Your task to perform on an android device: Clear the shopping cart on bestbuy. Search for "razer blade" on bestbuy, select the first entry, and add it to the cart. Image 0: 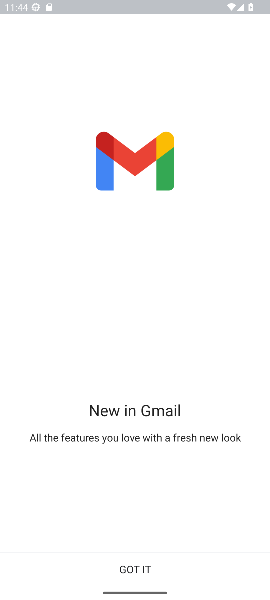
Step 0: press home button
Your task to perform on an android device: Clear the shopping cart on bestbuy. Search for "razer blade" on bestbuy, select the first entry, and add it to the cart. Image 1: 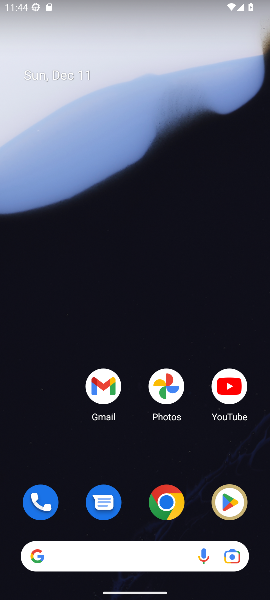
Step 1: click (118, 558)
Your task to perform on an android device: Clear the shopping cart on bestbuy. Search for "razer blade" on bestbuy, select the first entry, and add it to the cart. Image 2: 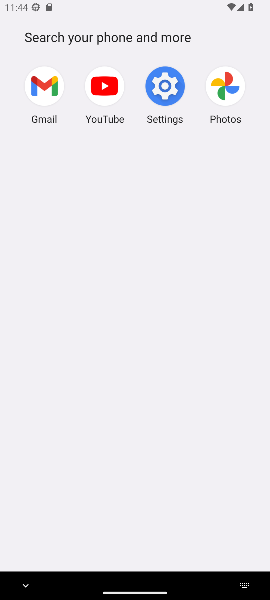
Step 2: type "bestbuy"
Your task to perform on an android device: Clear the shopping cart on bestbuy. Search for "razer blade" on bestbuy, select the first entry, and add it to the cart. Image 3: 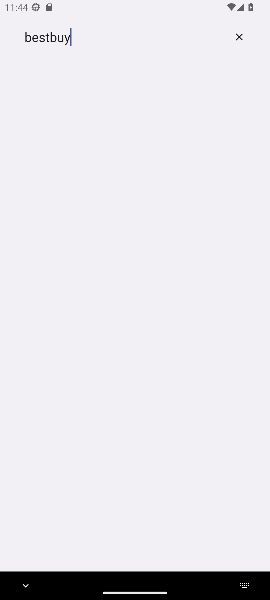
Step 3: press home button
Your task to perform on an android device: Clear the shopping cart on bestbuy. Search for "razer blade" on bestbuy, select the first entry, and add it to the cart. Image 4: 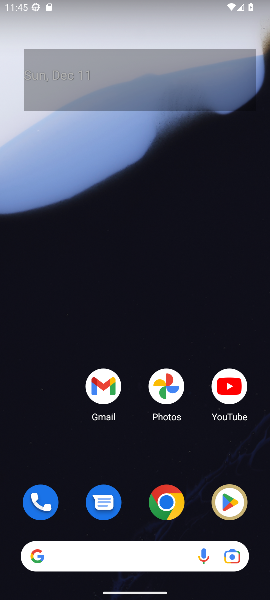
Step 4: click (148, 509)
Your task to perform on an android device: Clear the shopping cart on bestbuy. Search for "razer blade" on bestbuy, select the first entry, and add it to the cart. Image 5: 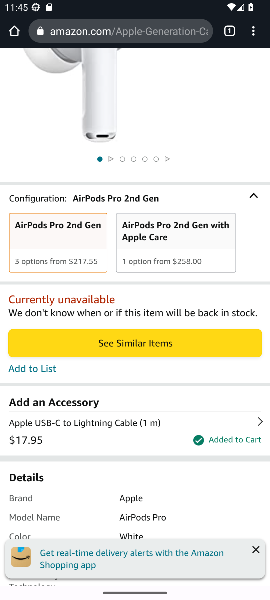
Step 5: type "bestbuy"
Your task to perform on an android device: Clear the shopping cart on bestbuy. Search for "razer blade" on bestbuy, select the first entry, and add it to the cart. Image 6: 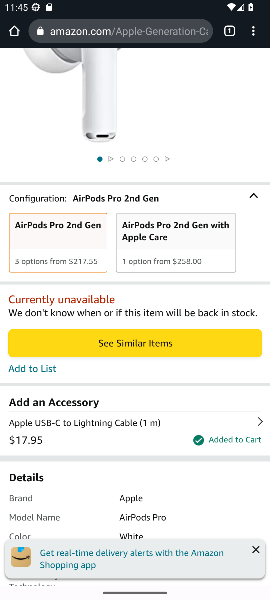
Step 6: press home button
Your task to perform on an android device: Clear the shopping cart on bestbuy. Search for "razer blade" on bestbuy, select the first entry, and add it to the cart. Image 7: 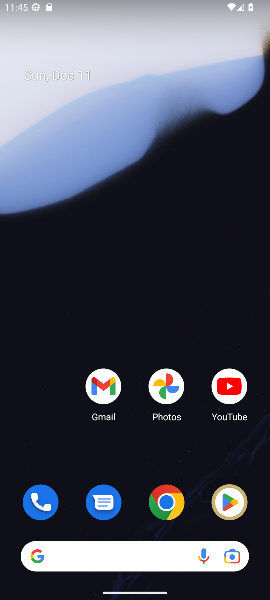
Step 7: click (175, 495)
Your task to perform on an android device: Clear the shopping cart on bestbuy. Search for "razer blade" on bestbuy, select the first entry, and add it to the cart. Image 8: 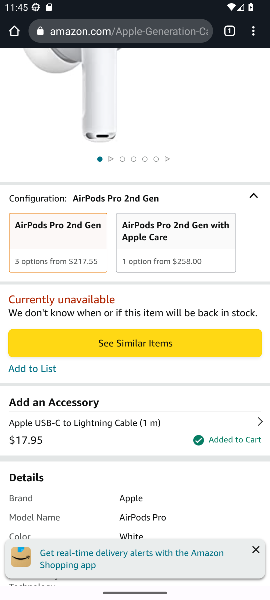
Step 8: drag from (188, 185) to (208, 412)
Your task to perform on an android device: Clear the shopping cart on bestbuy. Search for "razer blade" on bestbuy, select the first entry, and add it to the cart. Image 9: 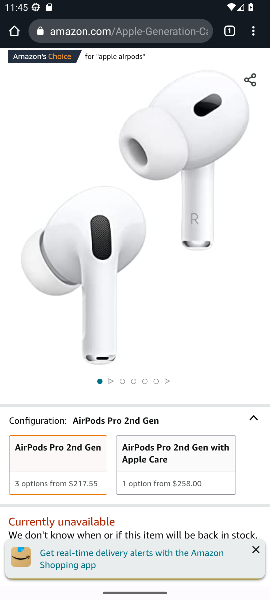
Step 9: click (148, 30)
Your task to perform on an android device: Clear the shopping cart on bestbuy. Search for "razer blade" on bestbuy, select the first entry, and add it to the cart. Image 10: 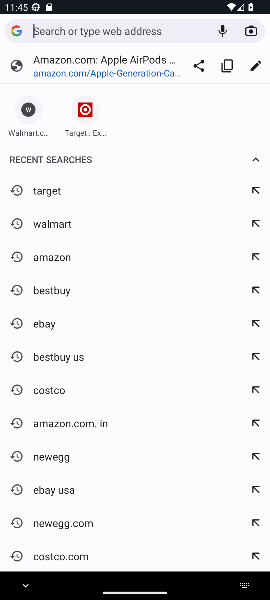
Step 10: click (60, 295)
Your task to perform on an android device: Clear the shopping cart on bestbuy. Search for "razer blade" on bestbuy, select the first entry, and add it to the cart. Image 11: 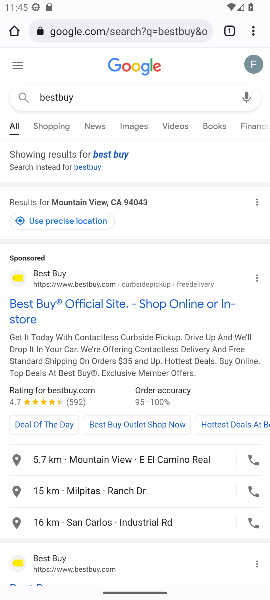
Step 11: click (52, 313)
Your task to perform on an android device: Clear the shopping cart on bestbuy. Search for "razer blade" on bestbuy, select the first entry, and add it to the cart. Image 12: 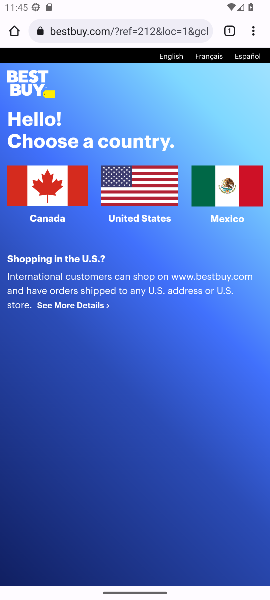
Step 12: click (31, 218)
Your task to perform on an android device: Clear the shopping cart on bestbuy. Search for "razer blade" on bestbuy, select the first entry, and add it to the cart. Image 13: 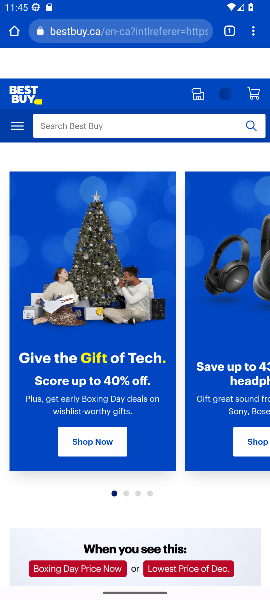
Step 13: click (103, 133)
Your task to perform on an android device: Clear the shopping cart on bestbuy. Search for "razer blade" on bestbuy, select the first entry, and add it to the cart. Image 14: 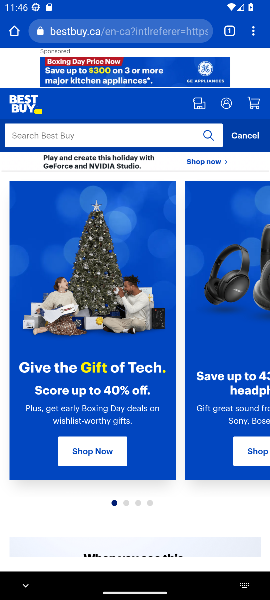
Step 14: type "razer blade"
Your task to perform on an android device: Clear the shopping cart on bestbuy. Search for "razer blade" on bestbuy, select the first entry, and add it to the cart. Image 15: 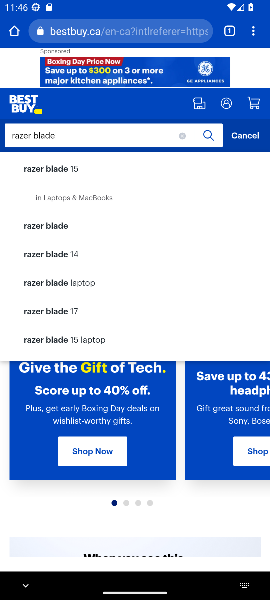
Step 15: click (41, 221)
Your task to perform on an android device: Clear the shopping cart on bestbuy. Search for "razer blade" on bestbuy, select the first entry, and add it to the cart. Image 16: 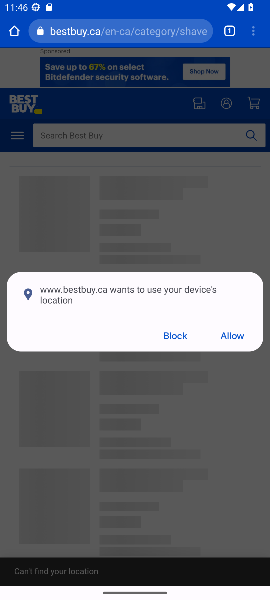
Step 16: click (214, 337)
Your task to perform on an android device: Clear the shopping cart on bestbuy. Search for "razer blade" on bestbuy, select the first entry, and add it to the cart. Image 17: 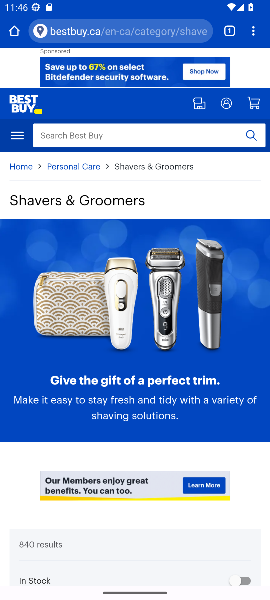
Step 17: drag from (149, 525) to (162, 306)
Your task to perform on an android device: Clear the shopping cart on bestbuy. Search for "razer blade" on bestbuy, select the first entry, and add it to the cart. Image 18: 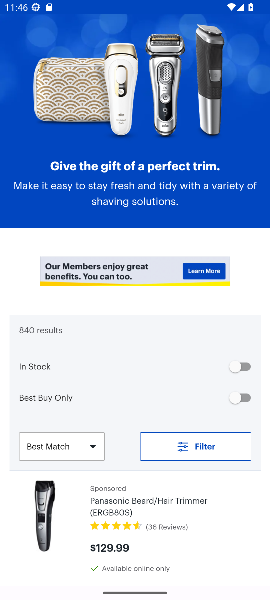
Step 18: drag from (190, 541) to (212, 309)
Your task to perform on an android device: Clear the shopping cart on bestbuy. Search for "razer blade" on bestbuy, select the first entry, and add it to the cart. Image 19: 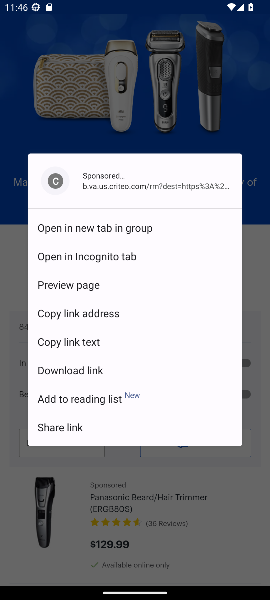
Step 19: click (218, 494)
Your task to perform on an android device: Clear the shopping cart on bestbuy. Search for "razer blade" on bestbuy, select the first entry, and add it to the cart. Image 20: 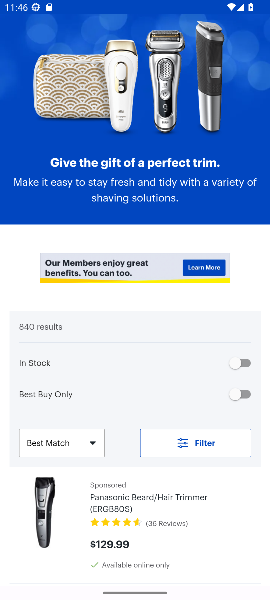
Step 20: drag from (218, 543) to (218, 382)
Your task to perform on an android device: Clear the shopping cart on bestbuy. Search for "razer blade" on bestbuy, select the first entry, and add it to the cart. Image 21: 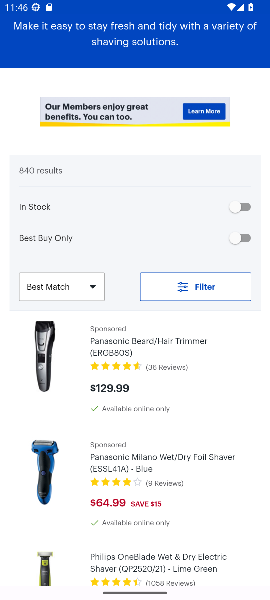
Step 21: click (142, 342)
Your task to perform on an android device: Clear the shopping cart on bestbuy. Search for "razer blade" on bestbuy, select the first entry, and add it to the cart. Image 22: 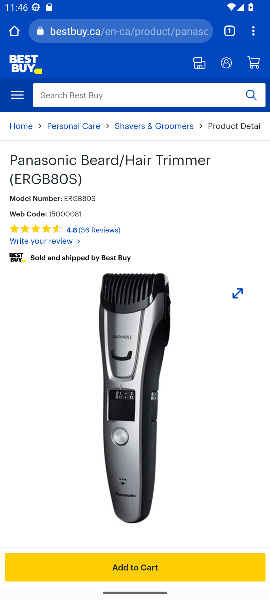
Step 22: click (186, 576)
Your task to perform on an android device: Clear the shopping cart on bestbuy. Search for "razer blade" on bestbuy, select the first entry, and add it to the cart. Image 23: 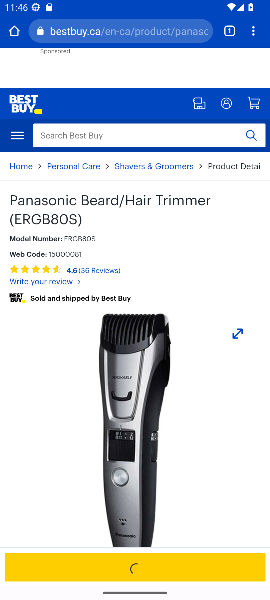
Step 23: click (186, 576)
Your task to perform on an android device: Clear the shopping cart on bestbuy. Search for "razer blade" on bestbuy, select the first entry, and add it to the cart. Image 24: 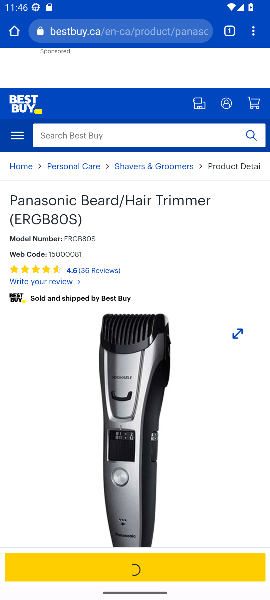
Step 24: task complete